Your task to perform on an android device: check data usage Image 0: 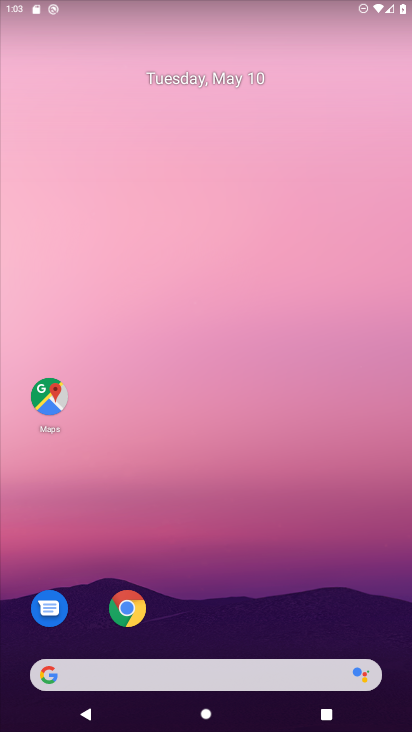
Step 0: drag from (255, 582) to (255, 166)
Your task to perform on an android device: check data usage Image 1: 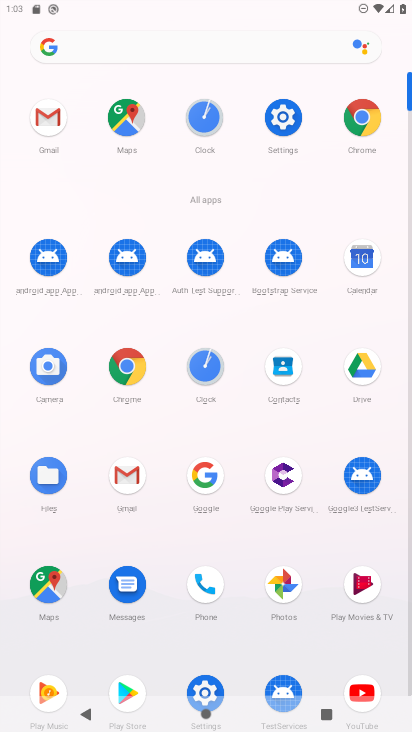
Step 1: click (210, 686)
Your task to perform on an android device: check data usage Image 2: 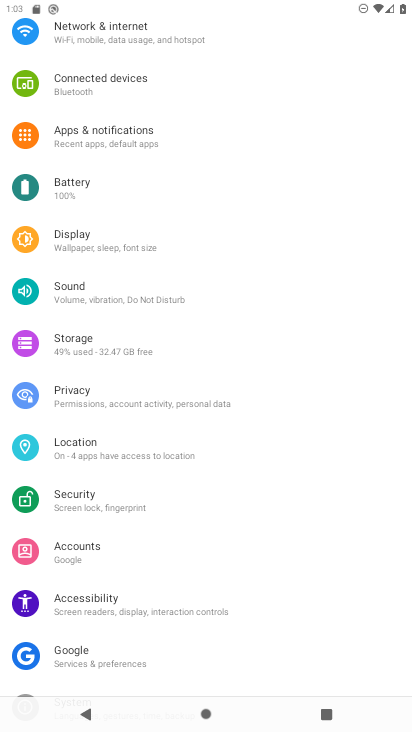
Step 2: click (148, 41)
Your task to perform on an android device: check data usage Image 3: 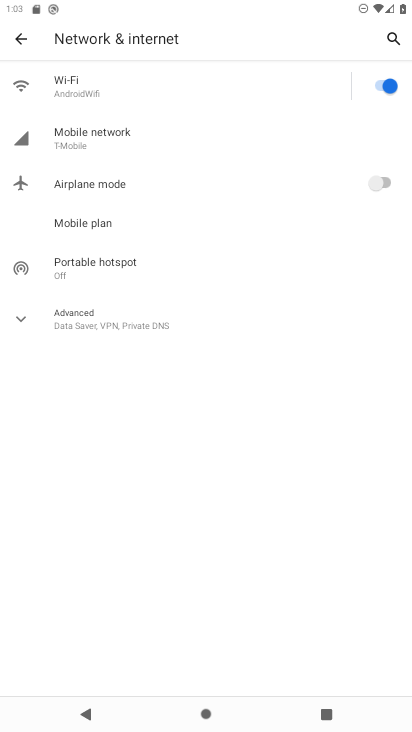
Step 3: click (114, 152)
Your task to perform on an android device: check data usage Image 4: 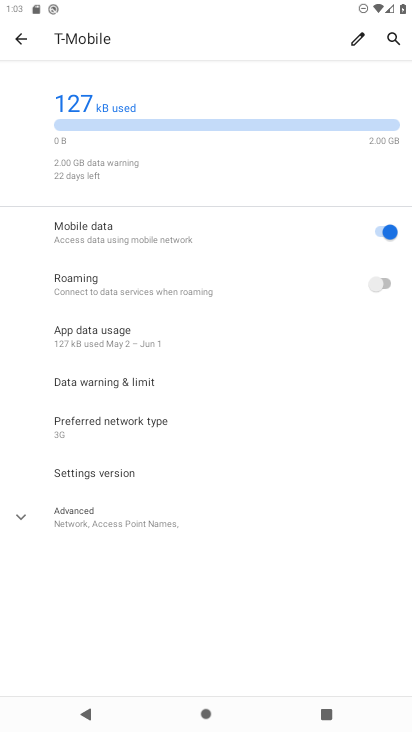
Step 4: task complete